Your task to perform on an android device: turn on data saver in the chrome app Image 0: 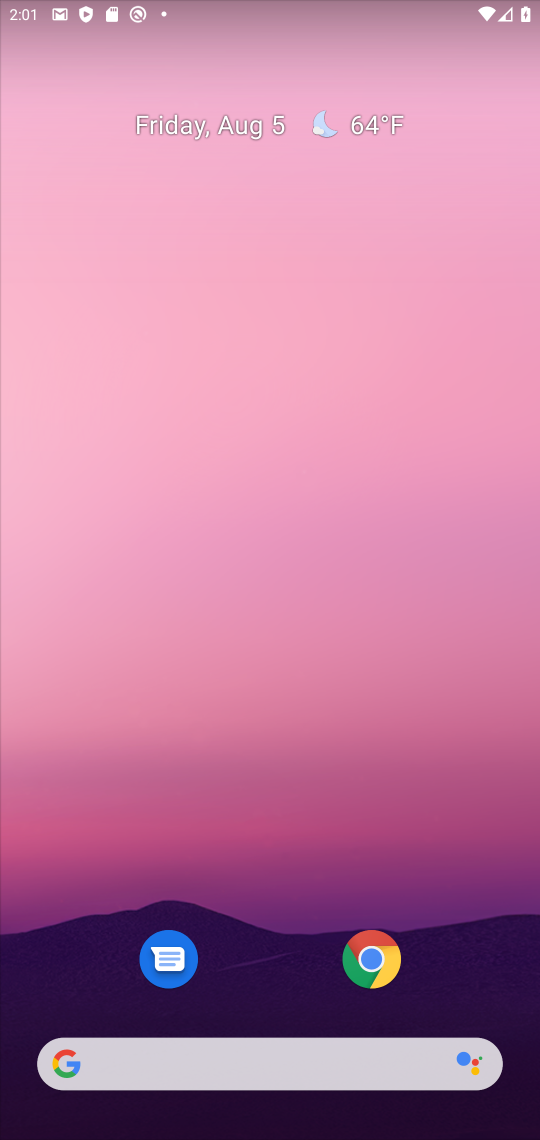
Step 0: click (376, 960)
Your task to perform on an android device: turn on data saver in the chrome app Image 1: 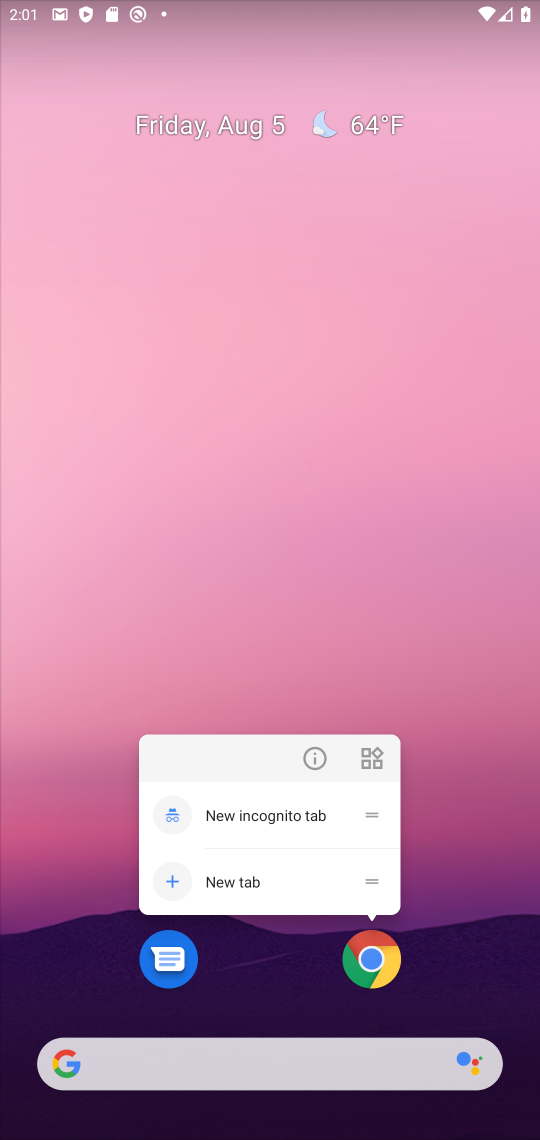
Step 1: click (381, 954)
Your task to perform on an android device: turn on data saver in the chrome app Image 2: 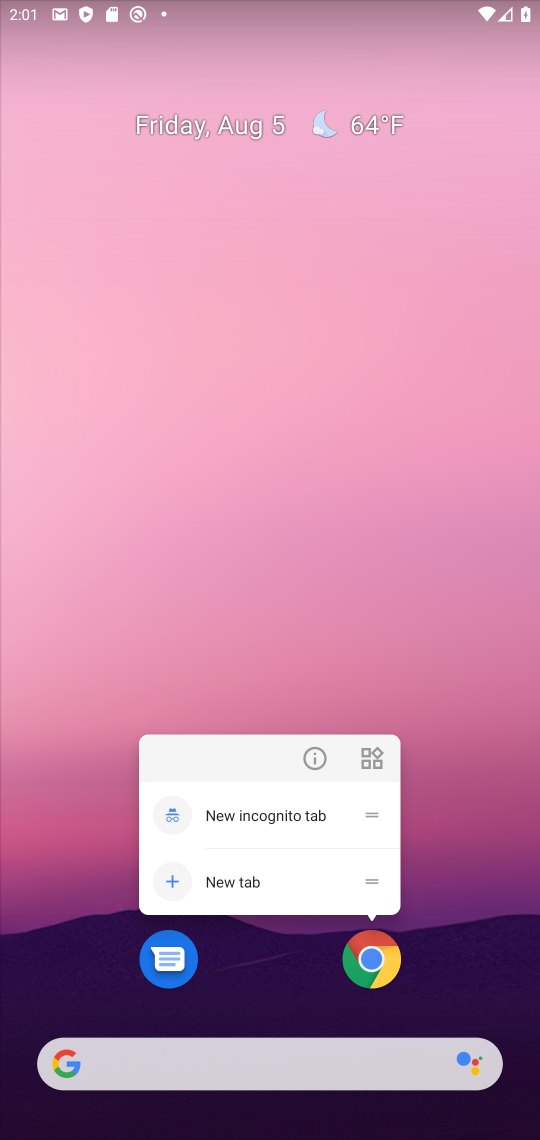
Step 2: click (391, 977)
Your task to perform on an android device: turn on data saver in the chrome app Image 3: 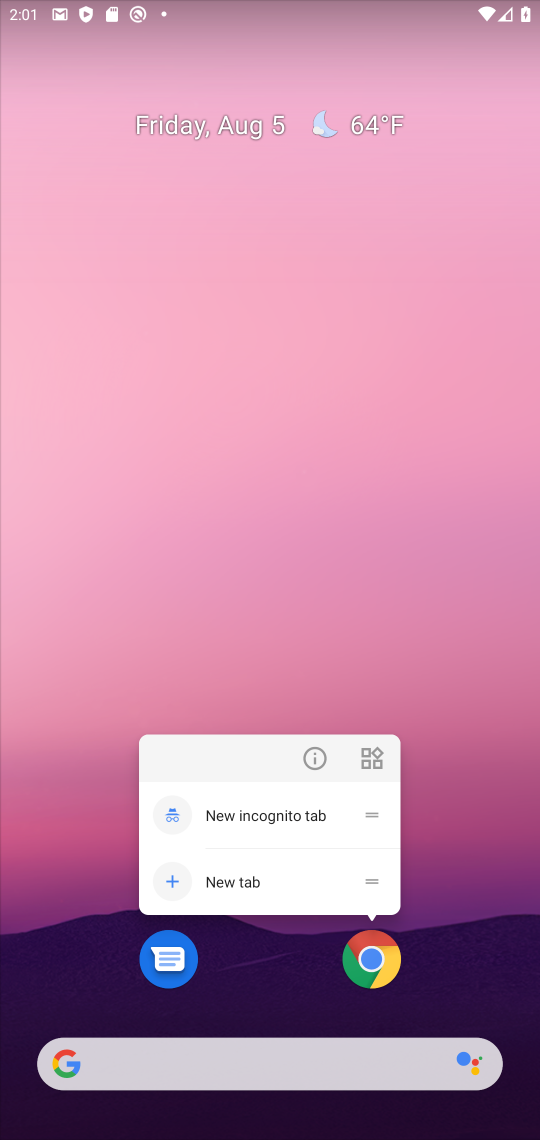
Step 3: click (391, 977)
Your task to perform on an android device: turn on data saver in the chrome app Image 4: 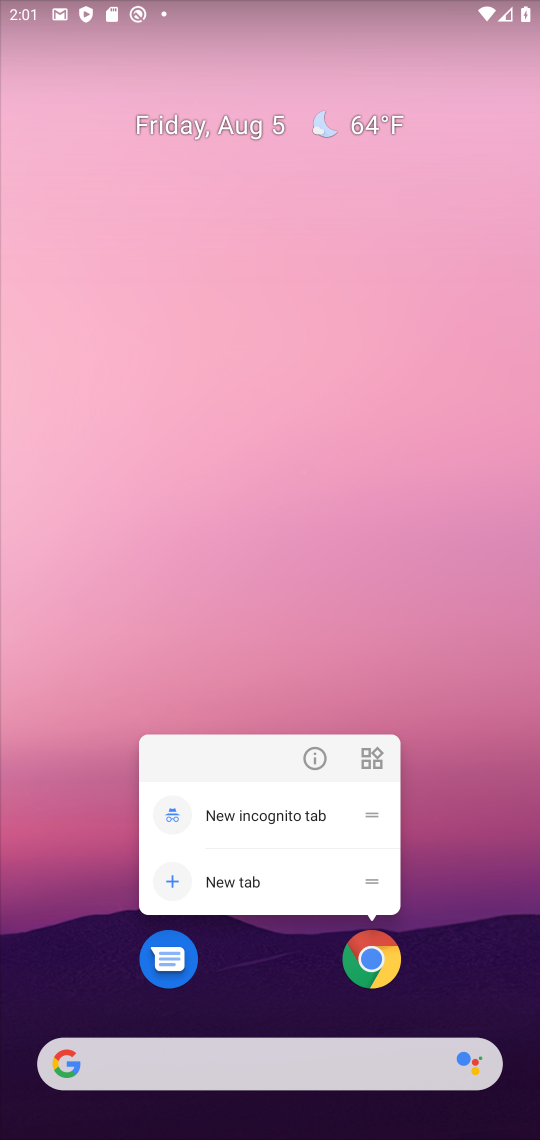
Step 4: click (391, 977)
Your task to perform on an android device: turn on data saver in the chrome app Image 5: 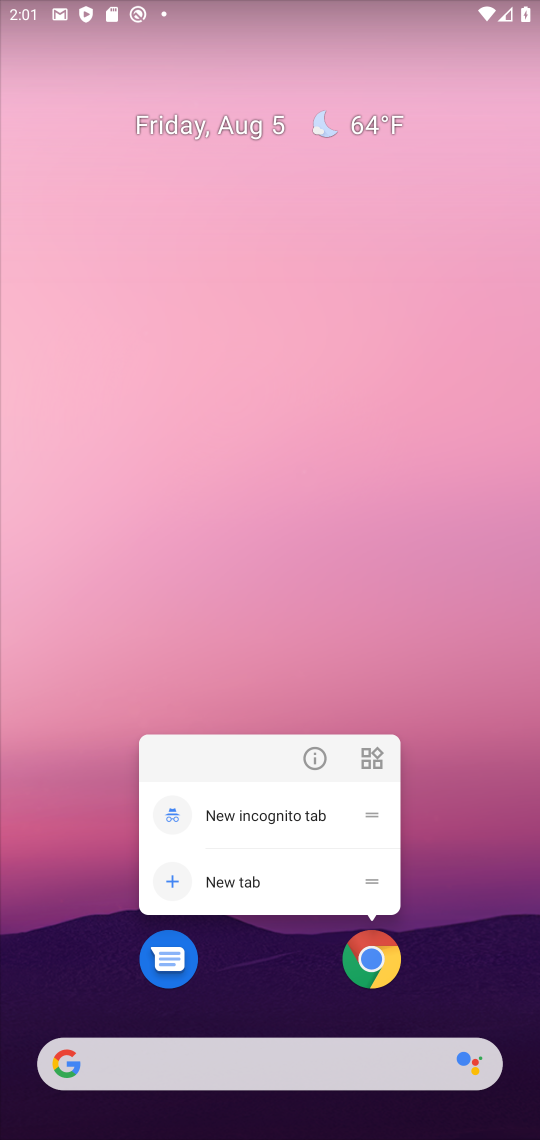
Step 5: click (363, 975)
Your task to perform on an android device: turn on data saver in the chrome app Image 6: 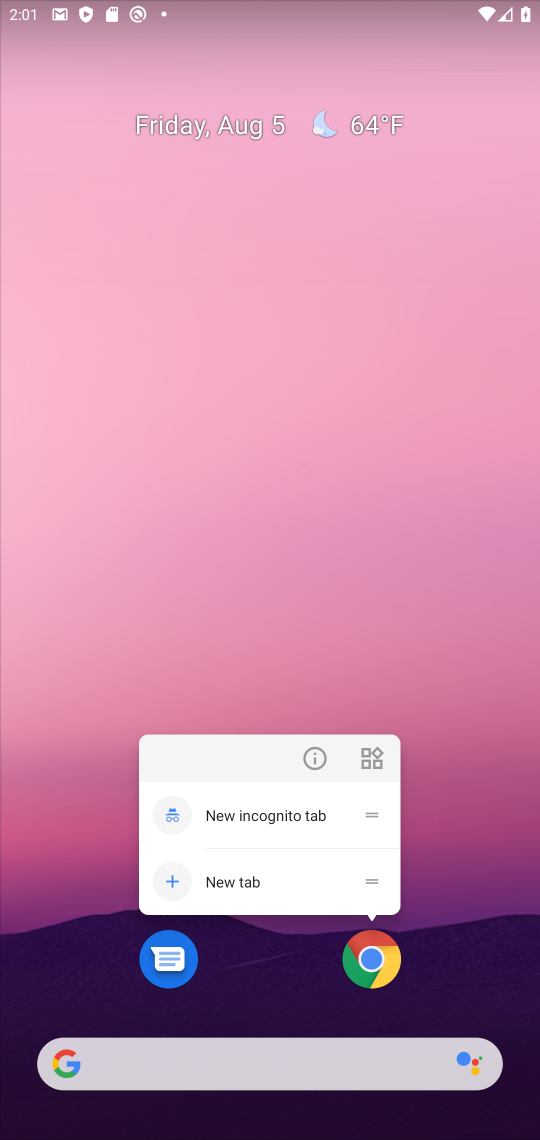
Step 6: click (363, 975)
Your task to perform on an android device: turn on data saver in the chrome app Image 7: 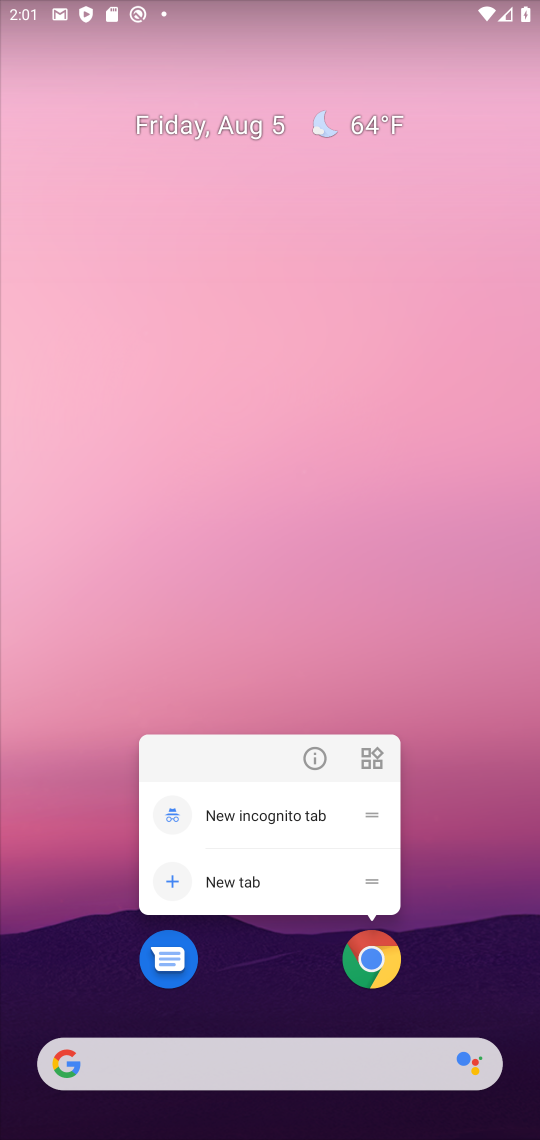
Step 7: click (373, 987)
Your task to perform on an android device: turn on data saver in the chrome app Image 8: 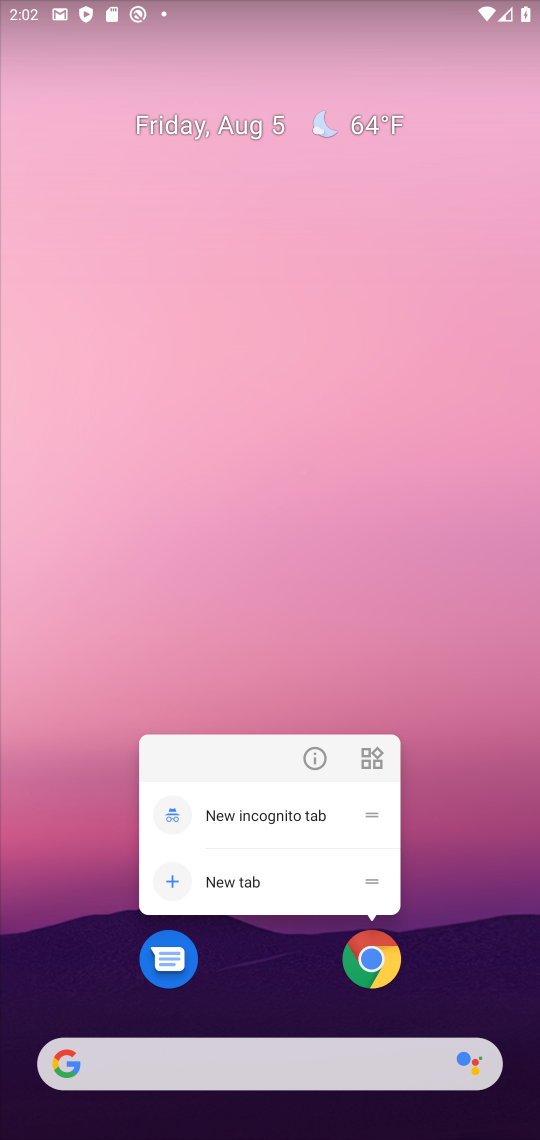
Step 8: click (386, 969)
Your task to perform on an android device: turn on data saver in the chrome app Image 9: 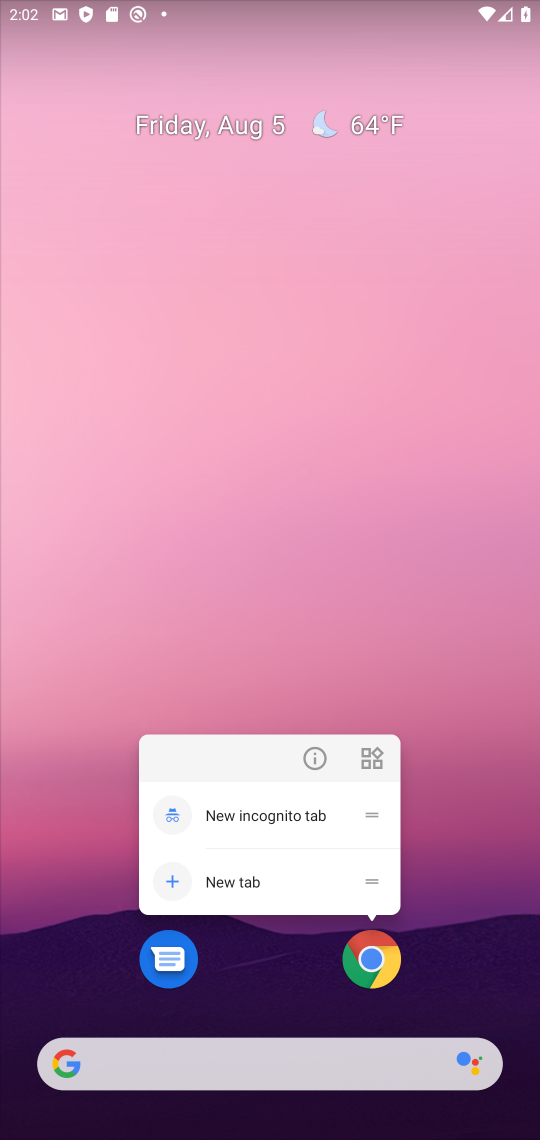
Step 9: click (384, 964)
Your task to perform on an android device: turn on data saver in the chrome app Image 10: 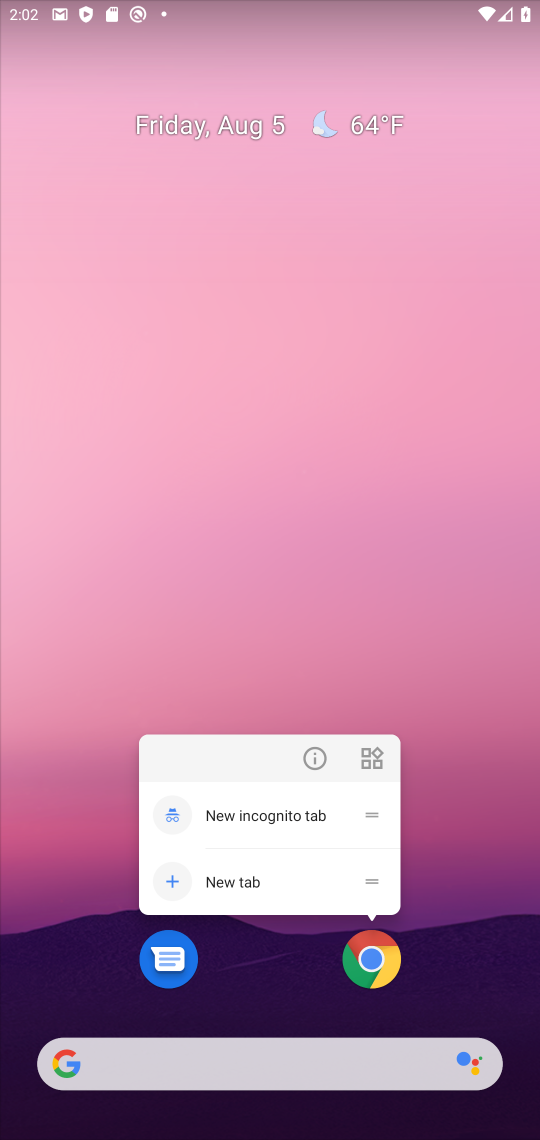
Step 10: click (329, 981)
Your task to perform on an android device: turn on data saver in the chrome app Image 11: 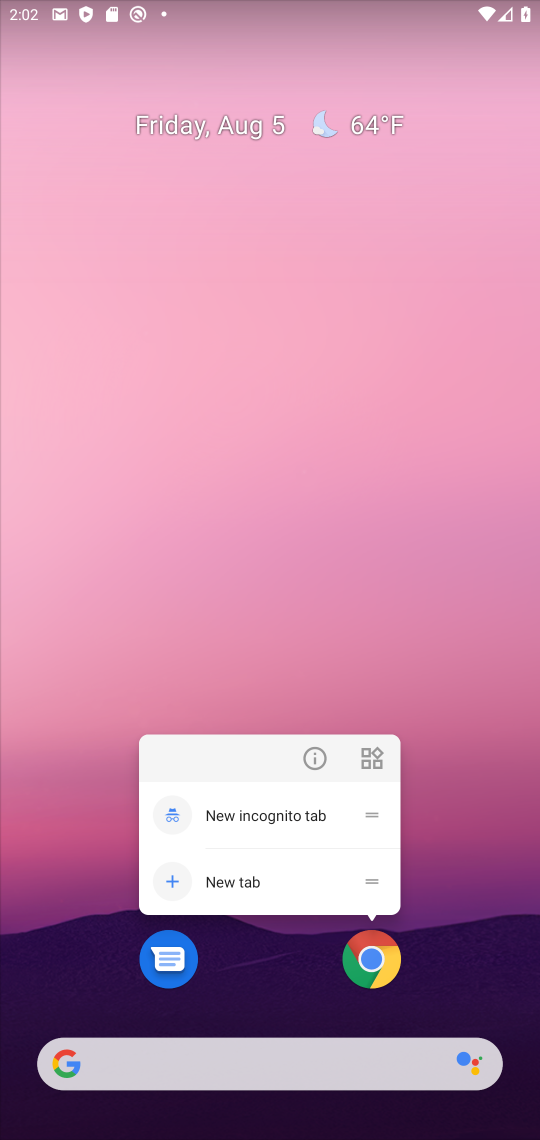
Step 11: click (368, 946)
Your task to perform on an android device: turn on data saver in the chrome app Image 12: 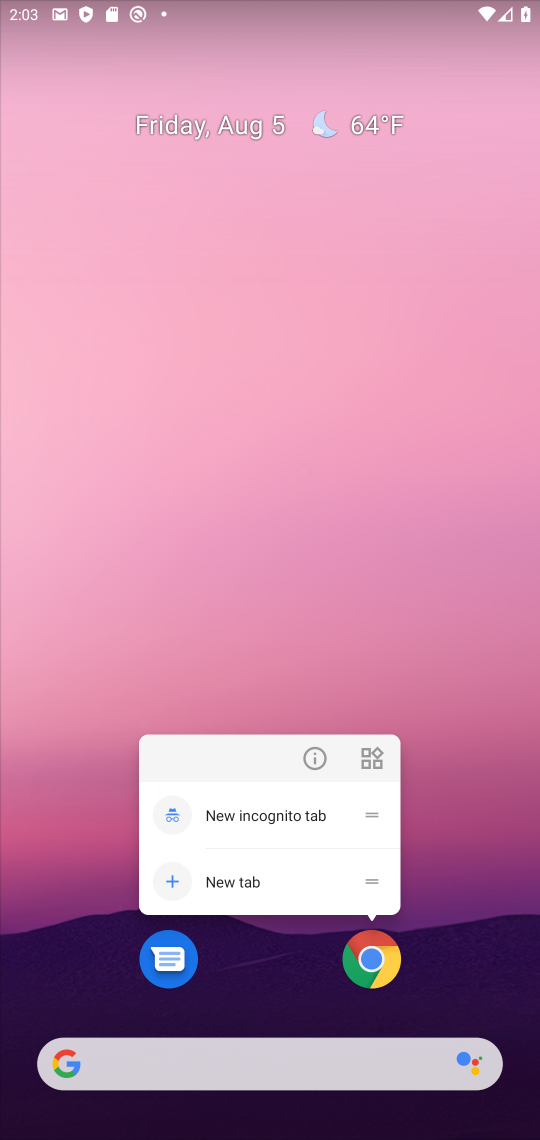
Step 12: click (377, 959)
Your task to perform on an android device: turn on data saver in the chrome app Image 13: 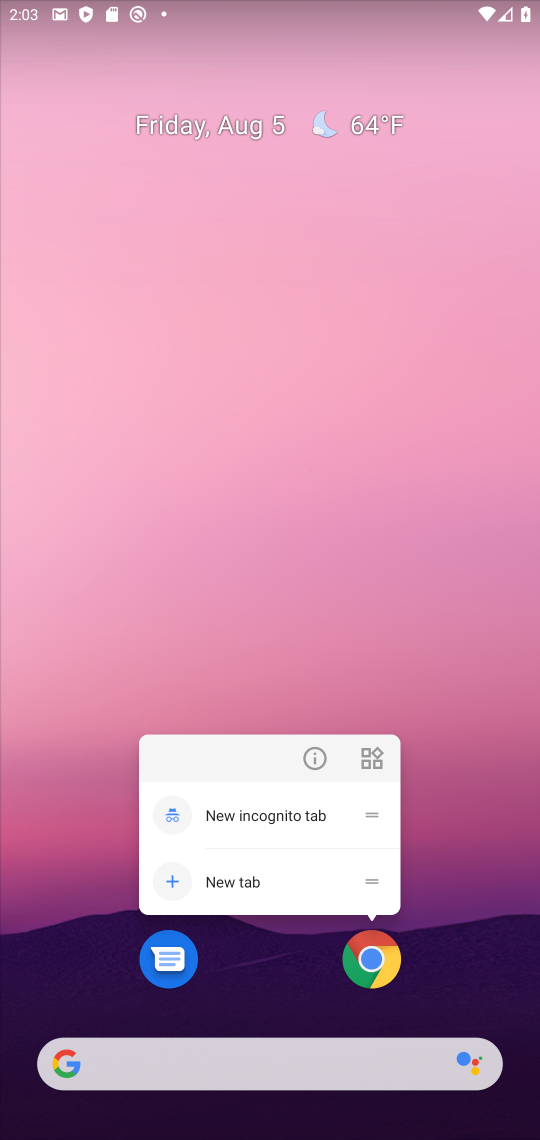
Step 13: click (377, 959)
Your task to perform on an android device: turn on data saver in the chrome app Image 14: 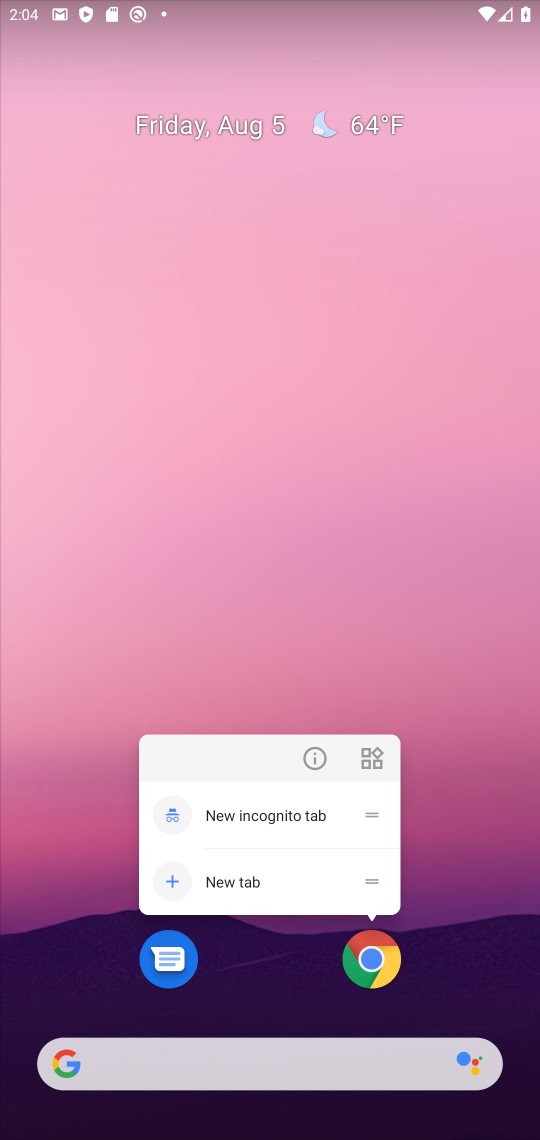
Step 14: click (377, 959)
Your task to perform on an android device: turn on data saver in the chrome app Image 15: 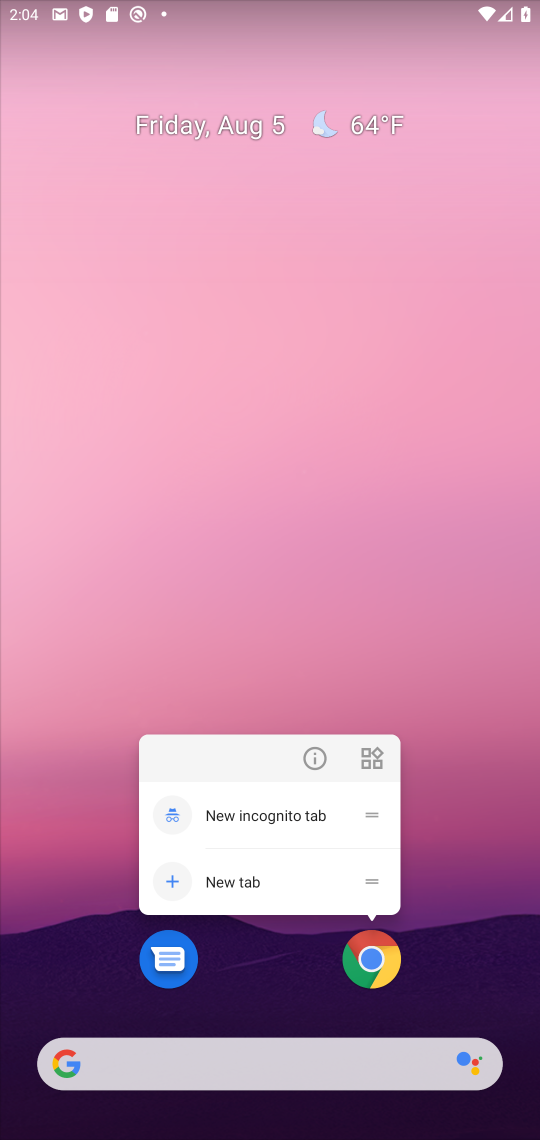
Step 15: click (382, 968)
Your task to perform on an android device: turn on data saver in the chrome app Image 16: 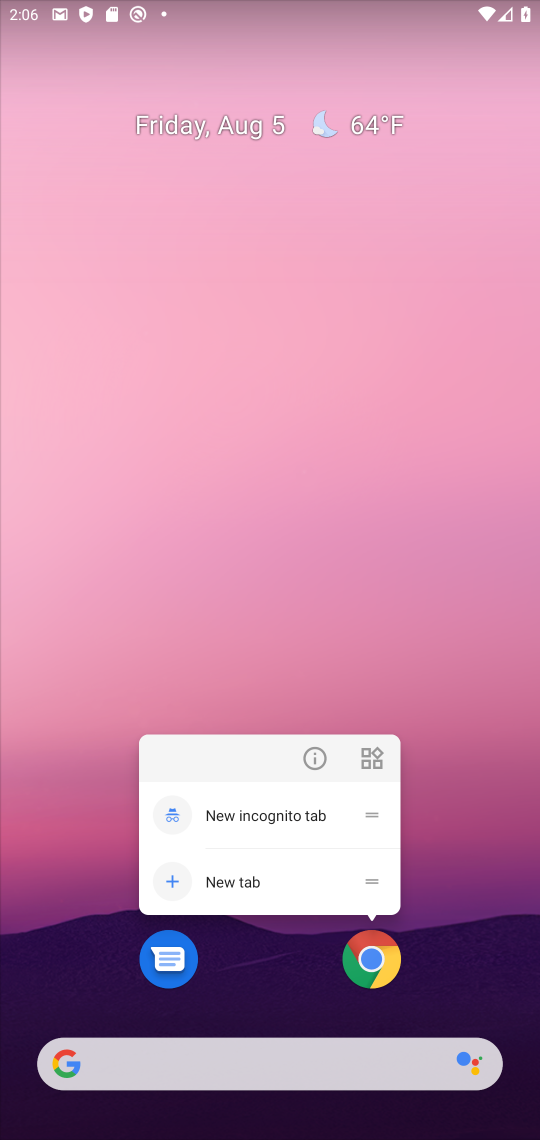
Step 16: click (379, 964)
Your task to perform on an android device: turn on data saver in the chrome app Image 17: 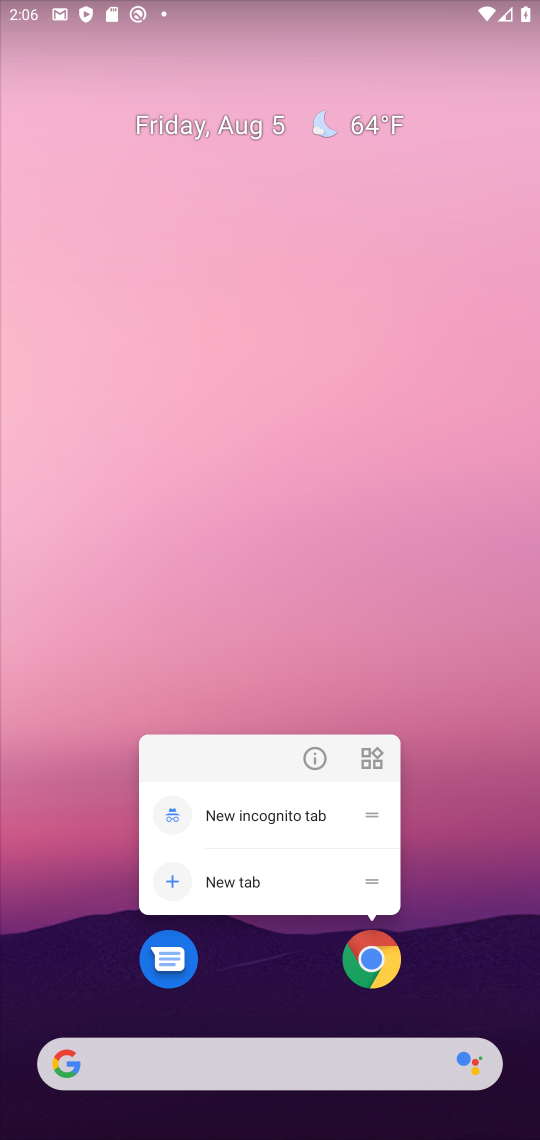
Step 17: click (379, 964)
Your task to perform on an android device: turn on data saver in the chrome app Image 18: 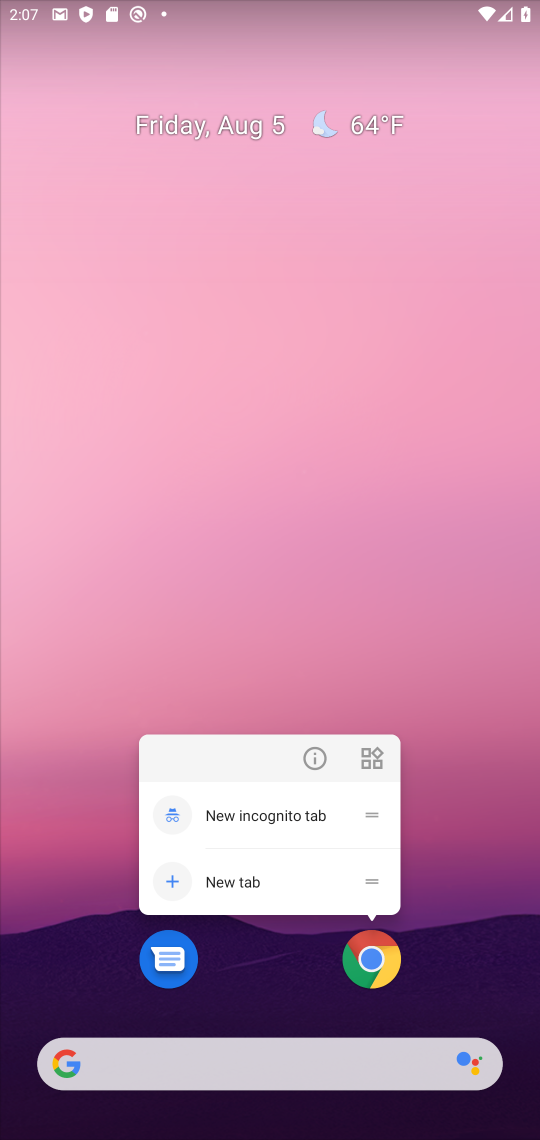
Step 18: click (375, 968)
Your task to perform on an android device: turn on data saver in the chrome app Image 19: 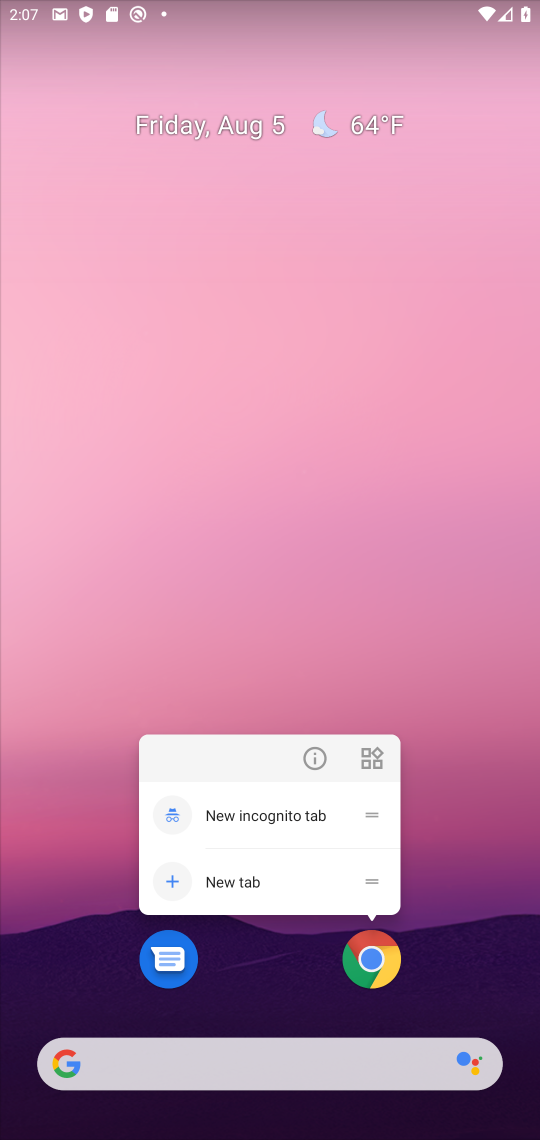
Step 19: click (392, 969)
Your task to perform on an android device: turn on data saver in the chrome app Image 20: 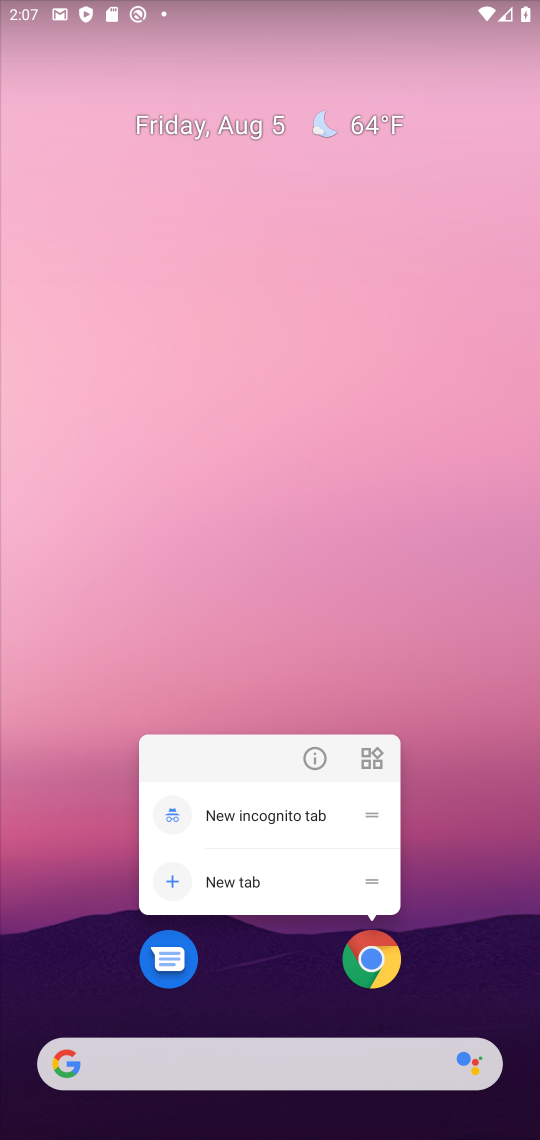
Step 20: click (392, 969)
Your task to perform on an android device: turn on data saver in the chrome app Image 21: 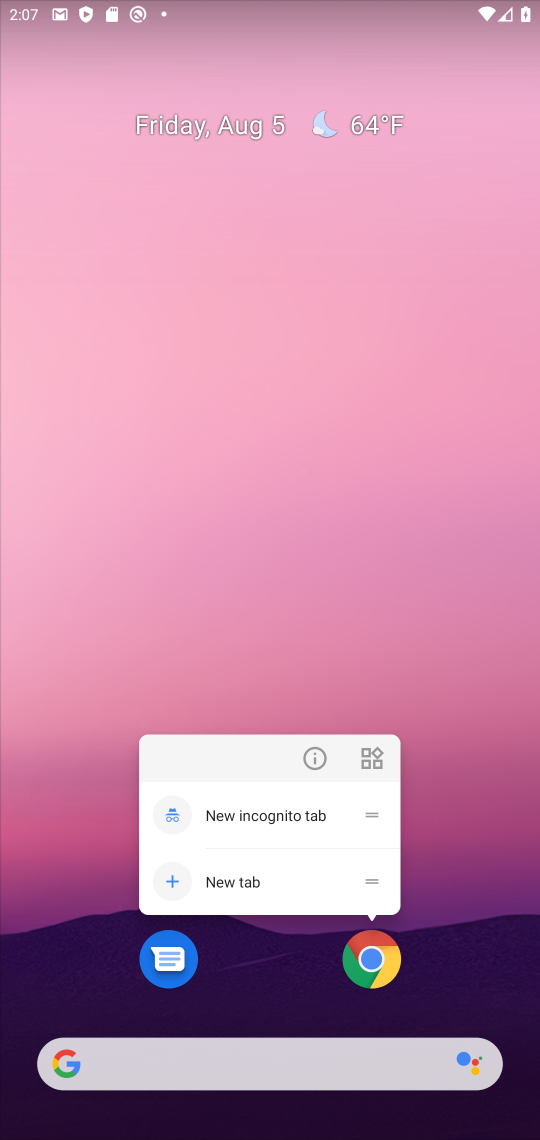
Step 21: click (375, 968)
Your task to perform on an android device: turn on data saver in the chrome app Image 22: 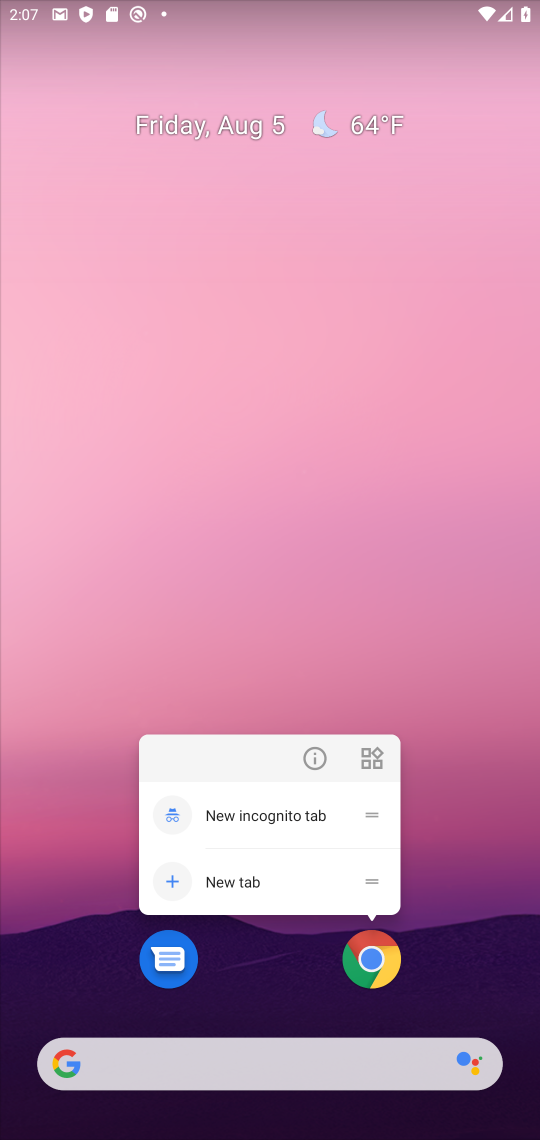
Step 22: click (375, 968)
Your task to perform on an android device: turn on data saver in the chrome app Image 23: 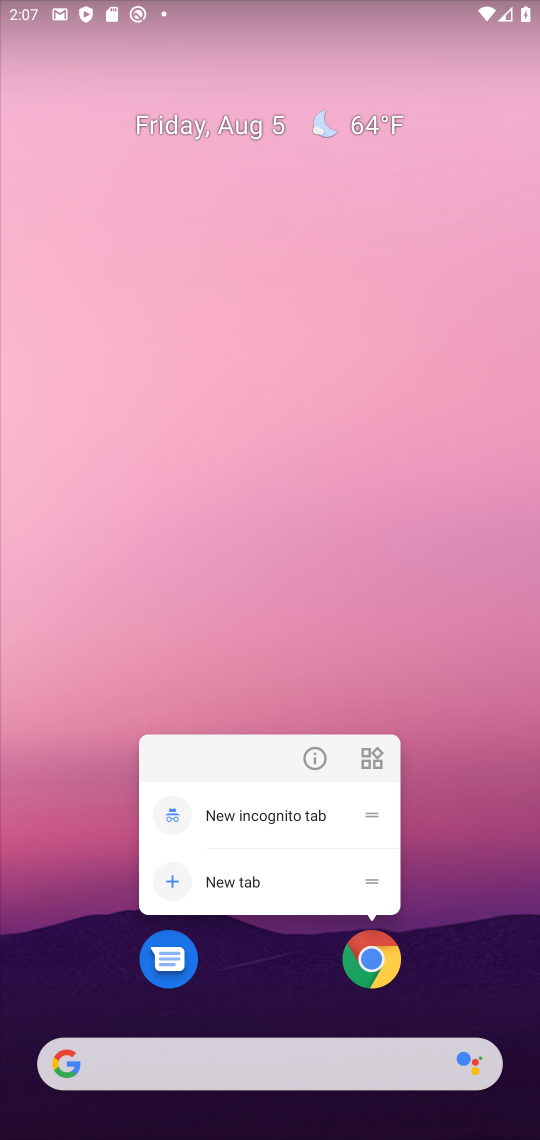
Step 23: click (375, 968)
Your task to perform on an android device: turn on data saver in the chrome app Image 24: 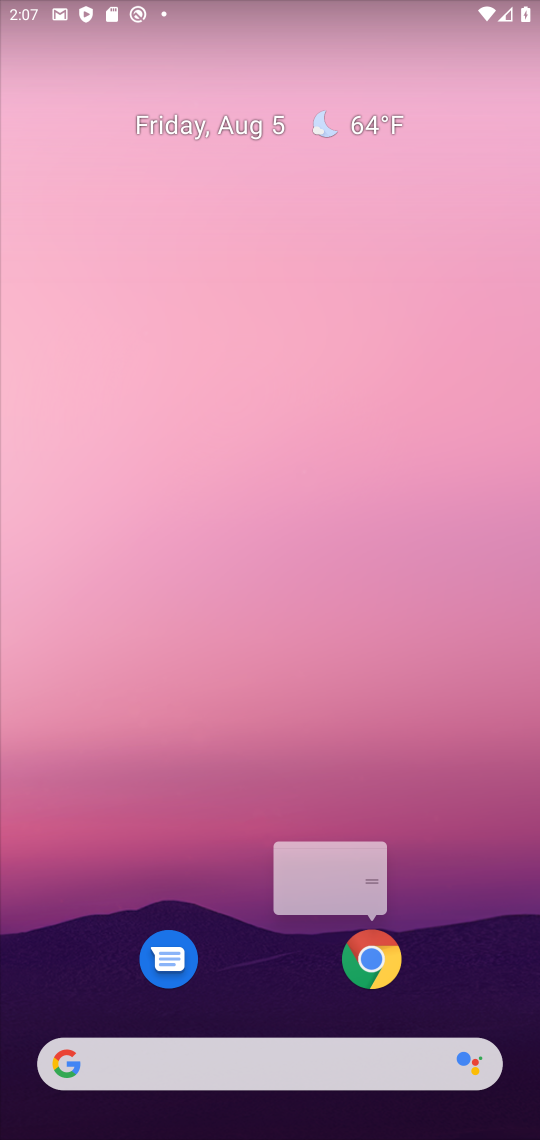
Step 24: click (375, 968)
Your task to perform on an android device: turn on data saver in the chrome app Image 25: 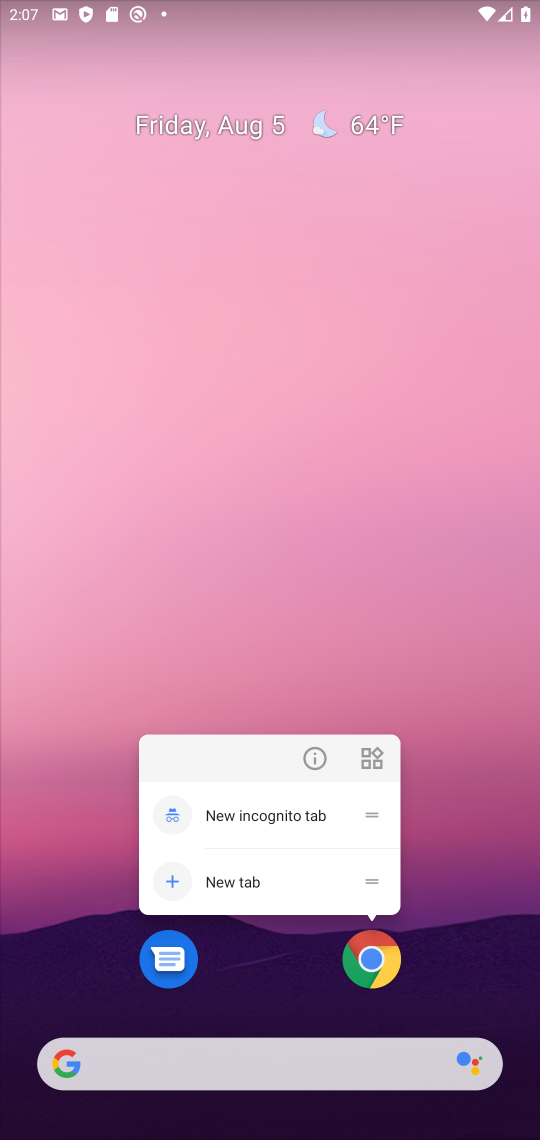
Step 25: click (375, 968)
Your task to perform on an android device: turn on data saver in the chrome app Image 26: 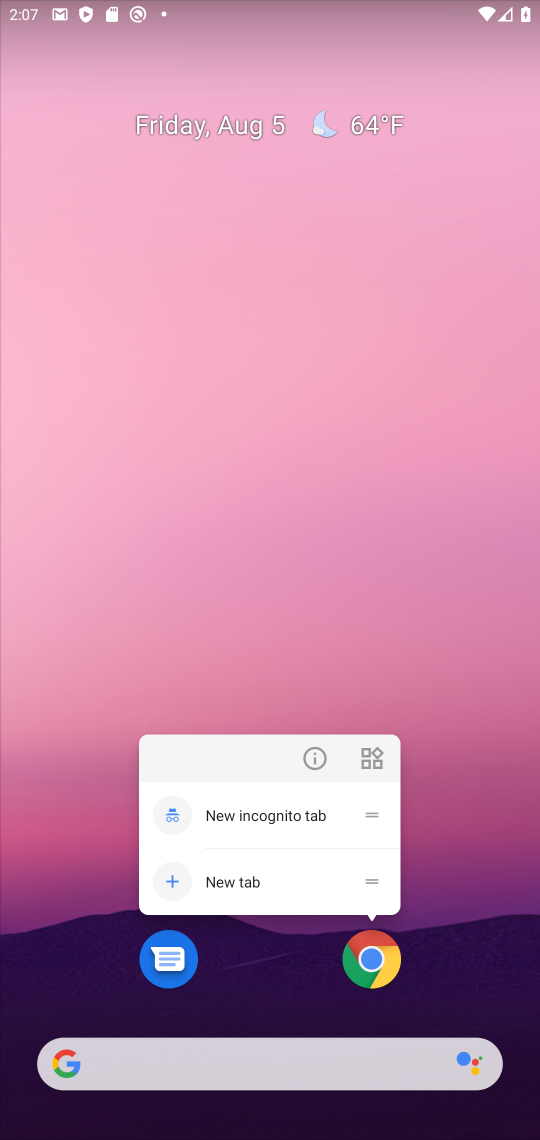
Step 26: click (375, 968)
Your task to perform on an android device: turn on data saver in the chrome app Image 27: 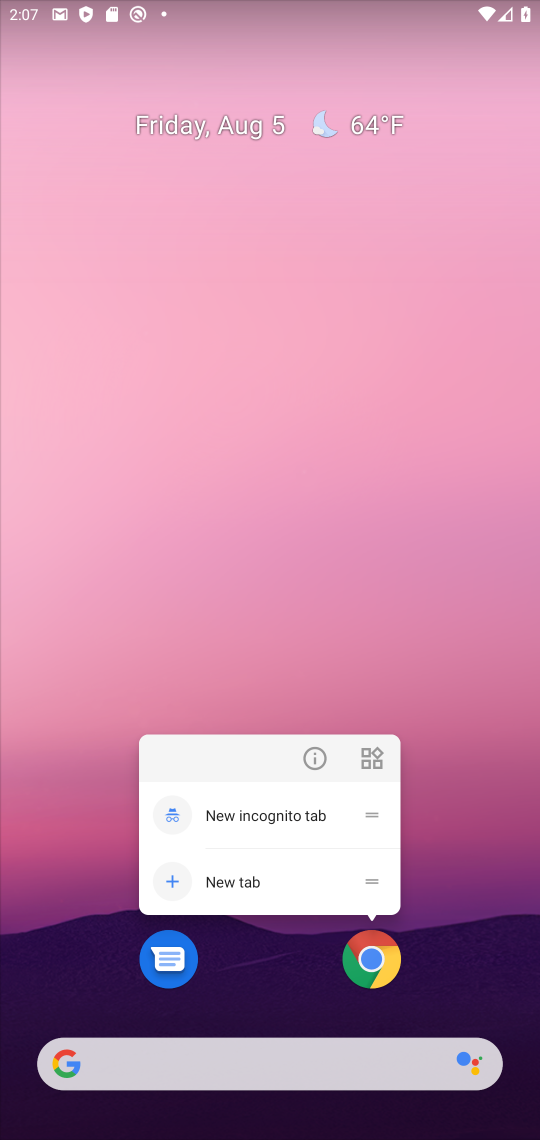
Step 27: click (372, 952)
Your task to perform on an android device: turn on data saver in the chrome app Image 28: 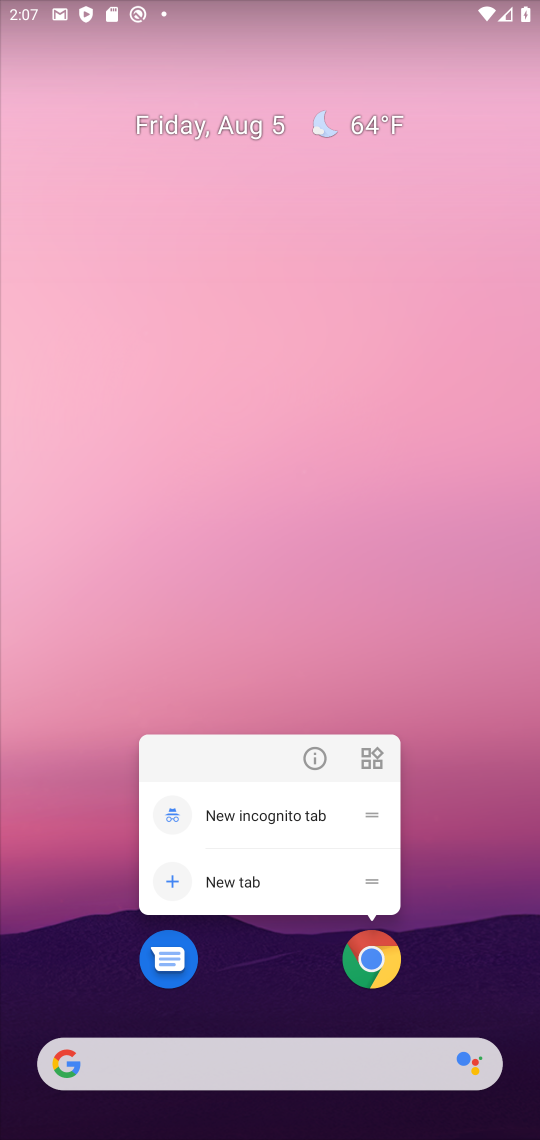
Step 28: click (382, 966)
Your task to perform on an android device: turn on data saver in the chrome app Image 29: 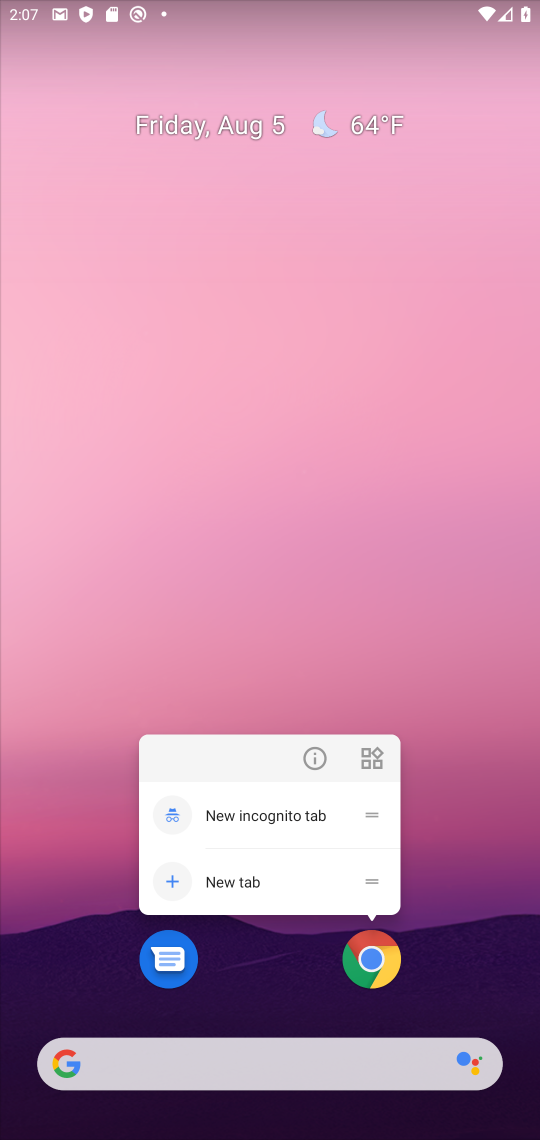
Step 29: click (365, 960)
Your task to perform on an android device: turn on data saver in the chrome app Image 30: 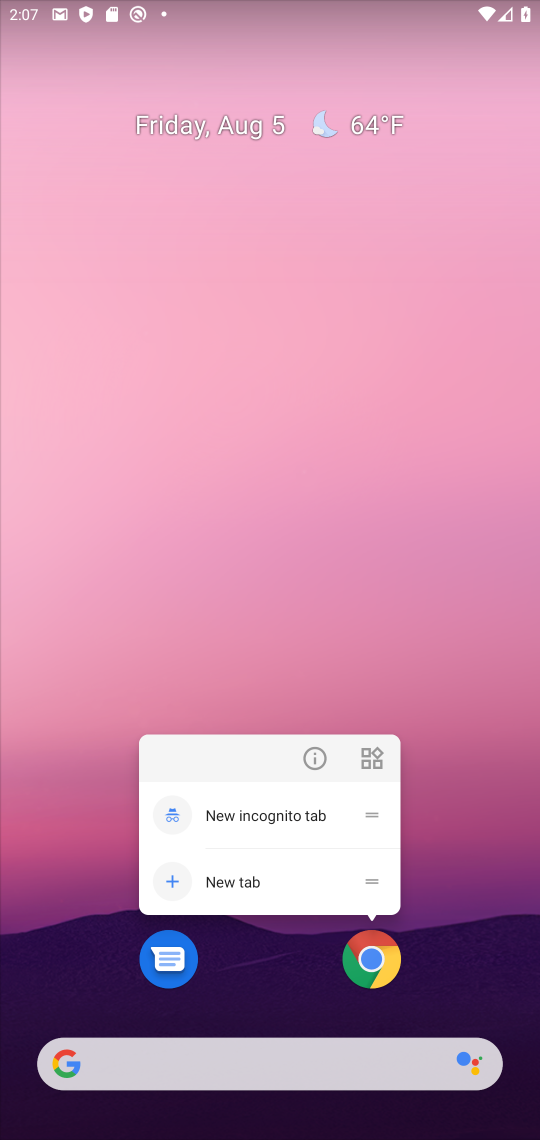
Step 30: click (365, 960)
Your task to perform on an android device: turn on data saver in the chrome app Image 31: 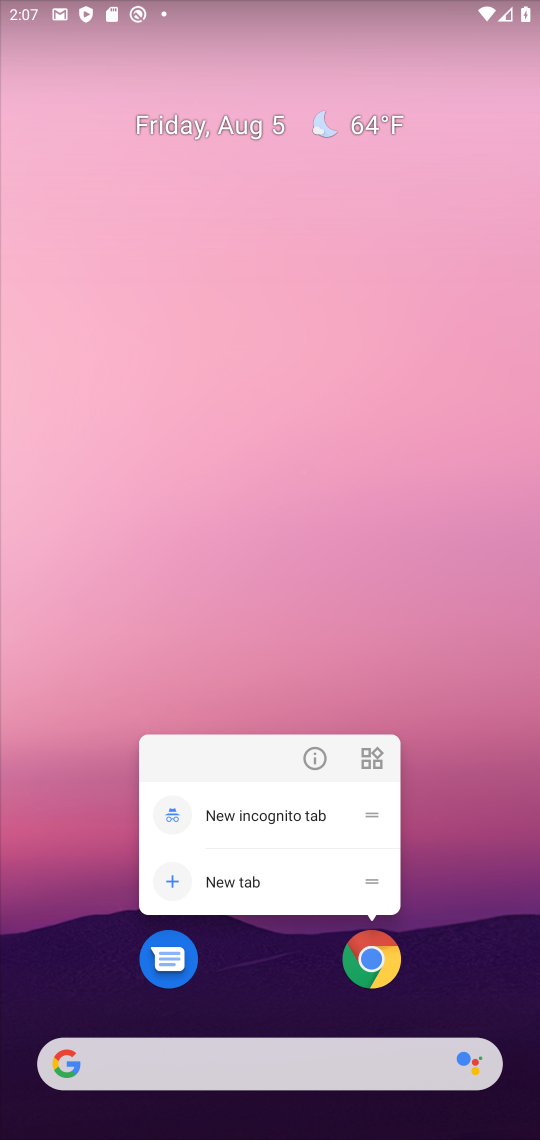
Step 31: click (365, 960)
Your task to perform on an android device: turn on data saver in the chrome app Image 32: 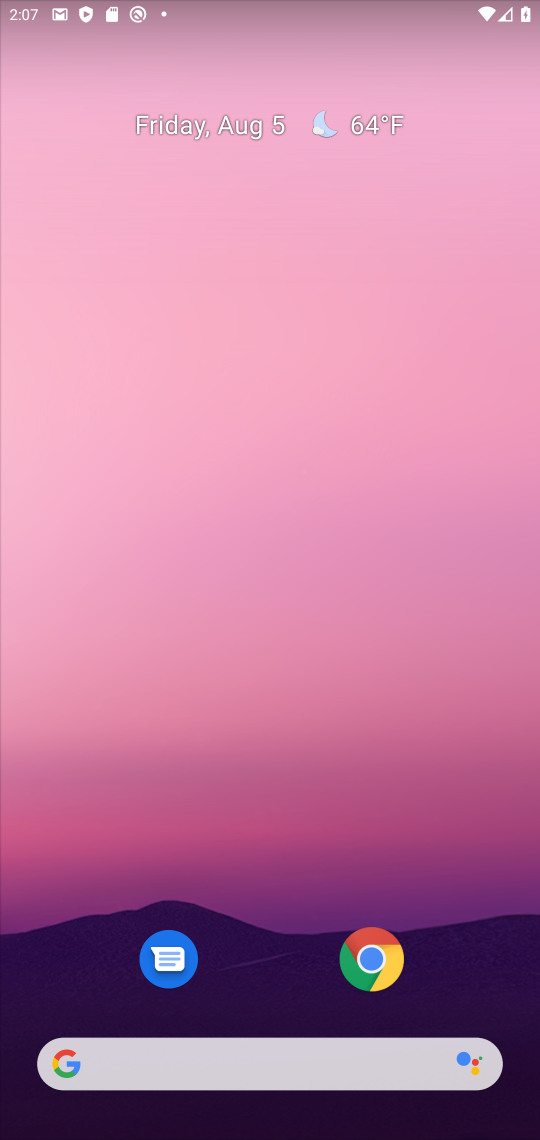
Step 32: click (365, 960)
Your task to perform on an android device: turn on data saver in the chrome app Image 33: 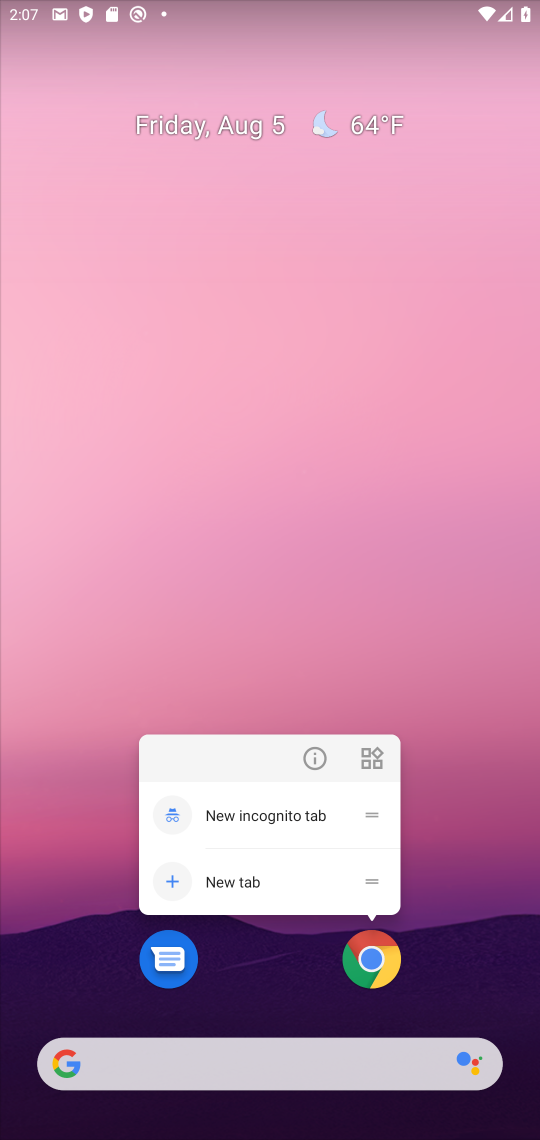
Step 33: click (365, 960)
Your task to perform on an android device: turn on data saver in the chrome app Image 34: 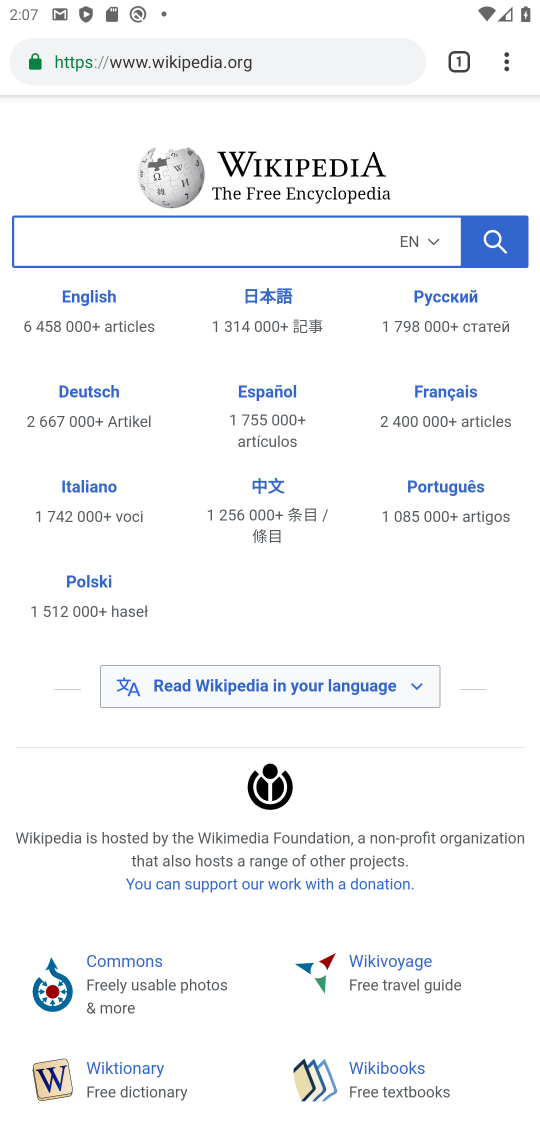
Step 34: click (512, 58)
Your task to perform on an android device: turn on data saver in the chrome app Image 35: 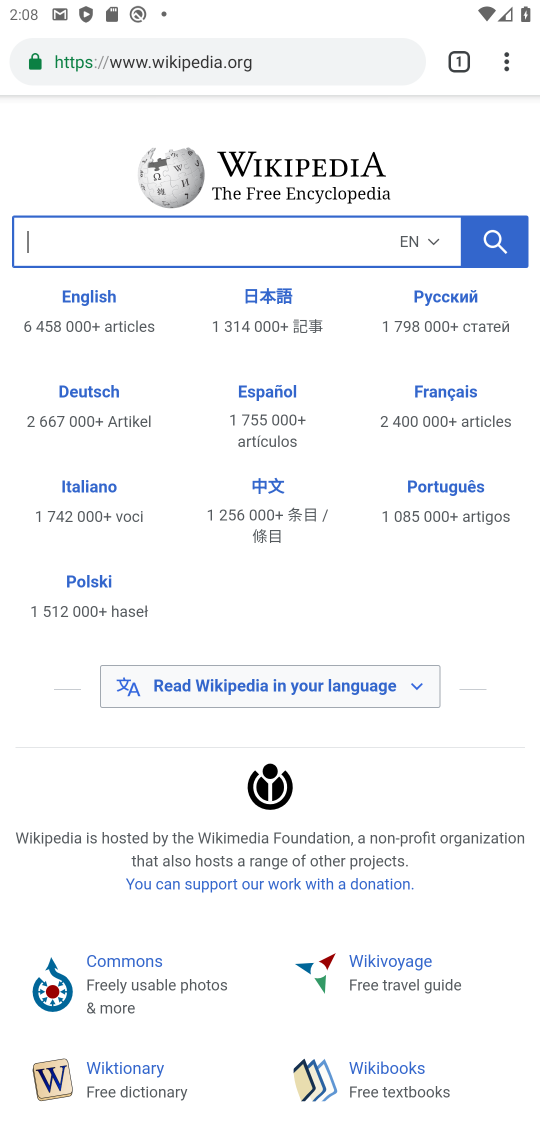
Step 35: click (508, 61)
Your task to perform on an android device: turn on data saver in the chrome app Image 36: 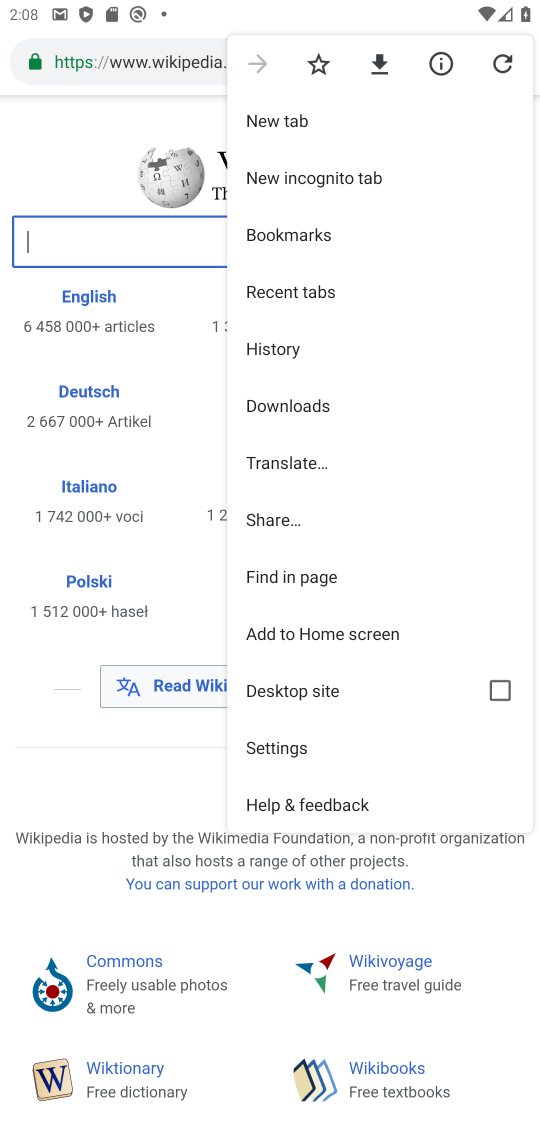
Step 36: click (298, 752)
Your task to perform on an android device: turn on data saver in the chrome app Image 37: 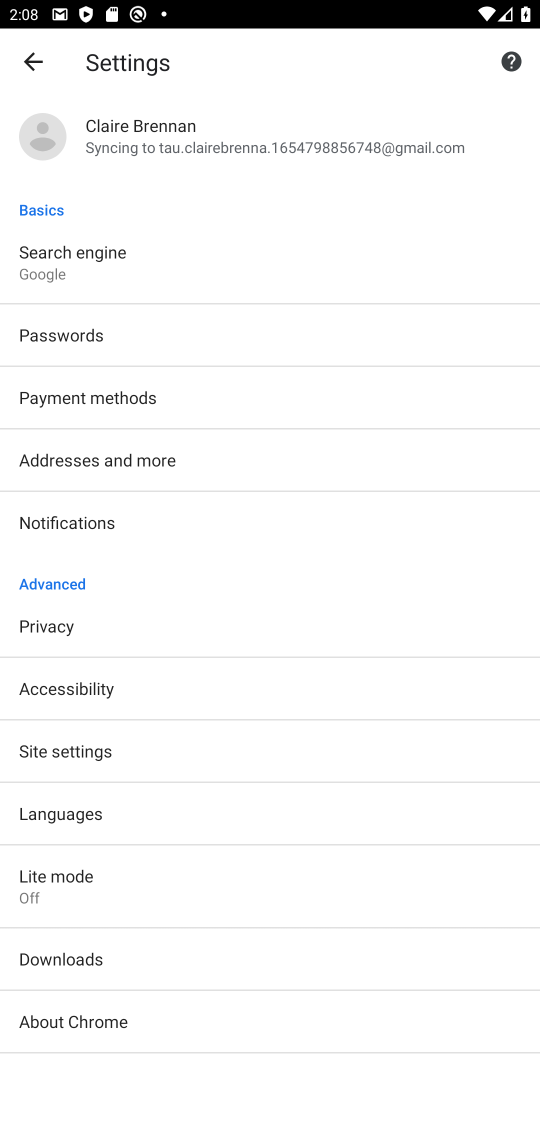
Step 37: click (167, 894)
Your task to perform on an android device: turn on data saver in the chrome app Image 38: 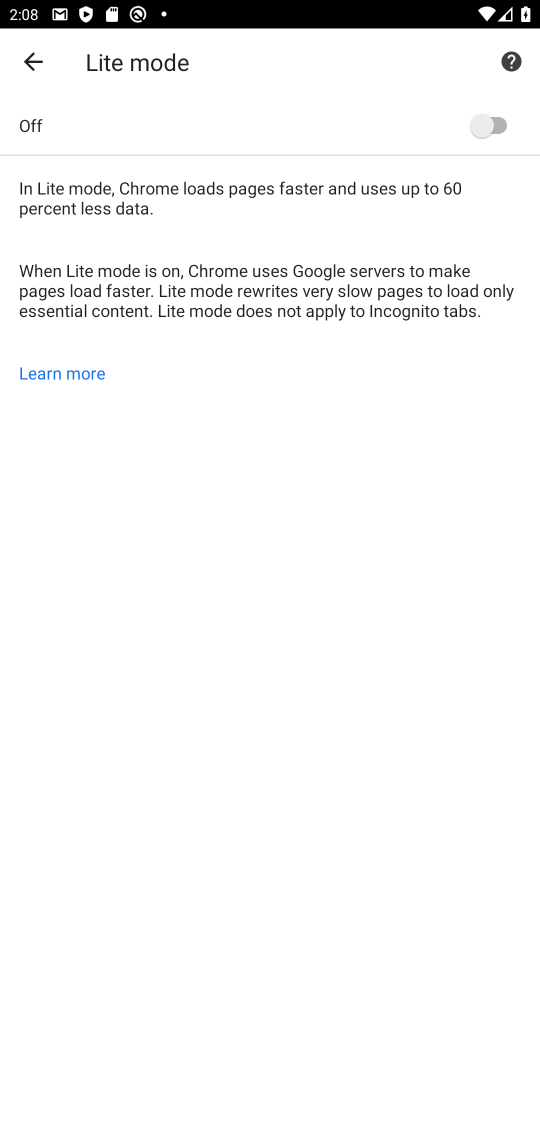
Step 38: click (499, 125)
Your task to perform on an android device: turn on data saver in the chrome app Image 39: 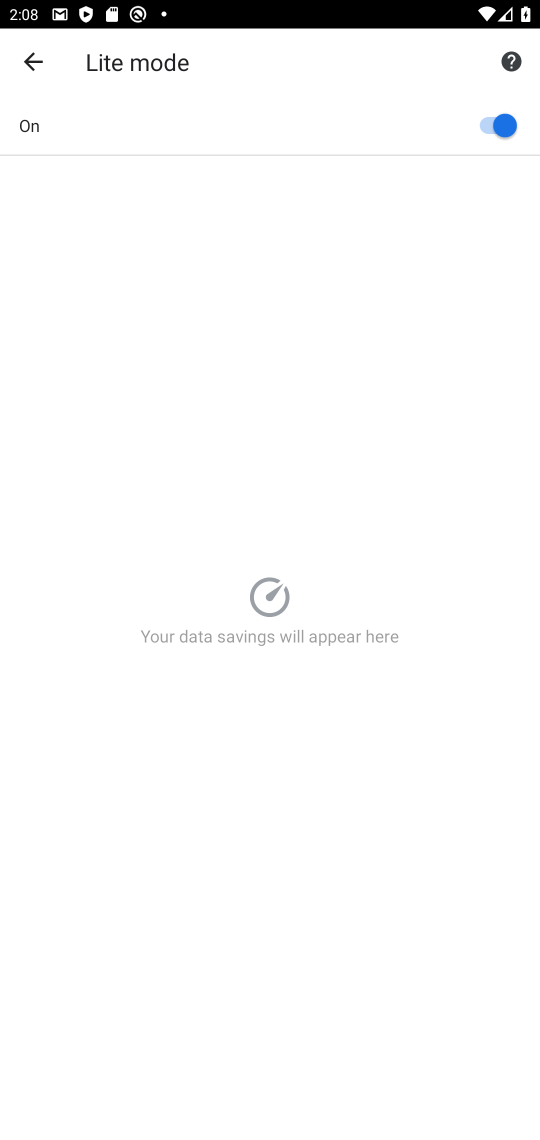
Step 39: task complete